Your task to perform on an android device: What's the weather going to be this weekend? Image 0: 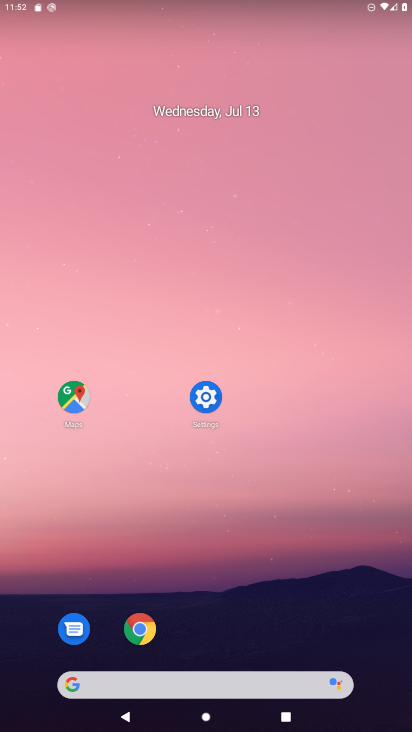
Step 0: drag from (383, 686) to (383, 169)
Your task to perform on an android device: What's the weather going to be this weekend? Image 1: 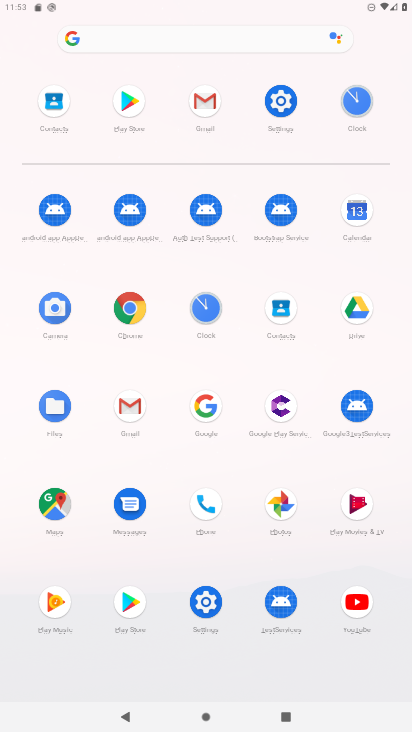
Step 1: click (206, 410)
Your task to perform on an android device: What's the weather going to be this weekend? Image 2: 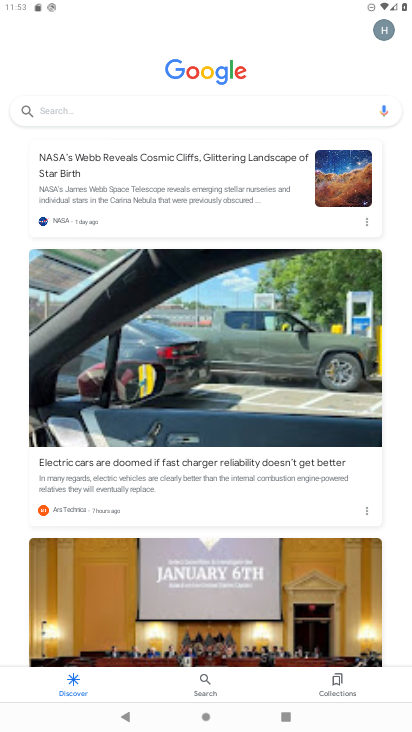
Step 2: task complete